Your task to perform on an android device: Do I have any events tomorrow? Image 0: 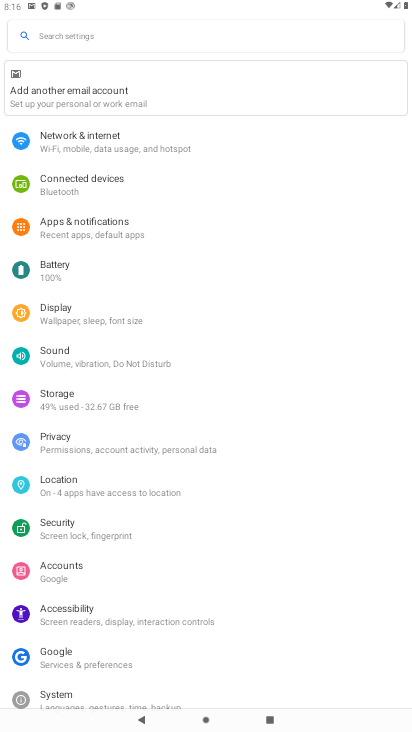
Step 0: press home button
Your task to perform on an android device: Do I have any events tomorrow? Image 1: 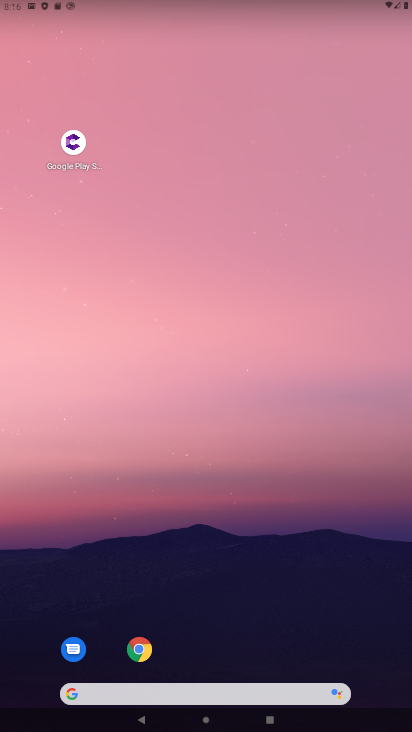
Step 1: drag from (191, 647) to (262, 47)
Your task to perform on an android device: Do I have any events tomorrow? Image 2: 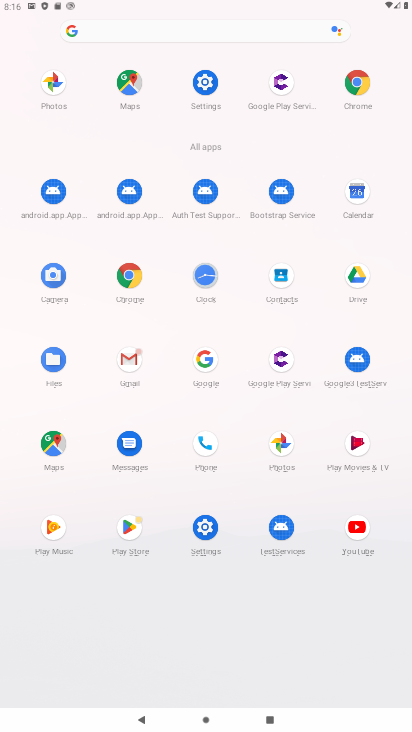
Step 2: click (359, 192)
Your task to perform on an android device: Do I have any events tomorrow? Image 3: 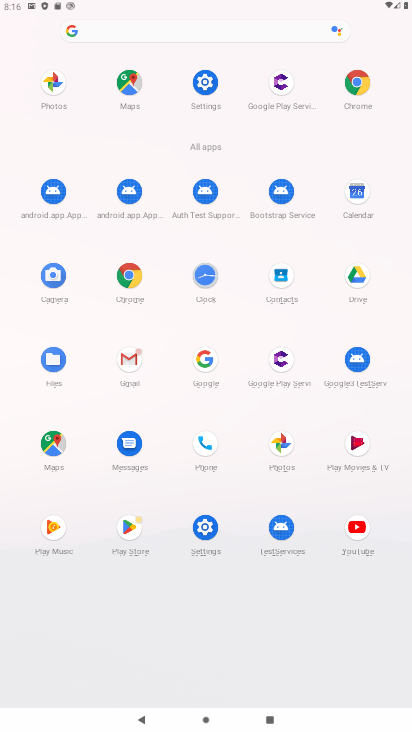
Step 3: click (359, 192)
Your task to perform on an android device: Do I have any events tomorrow? Image 4: 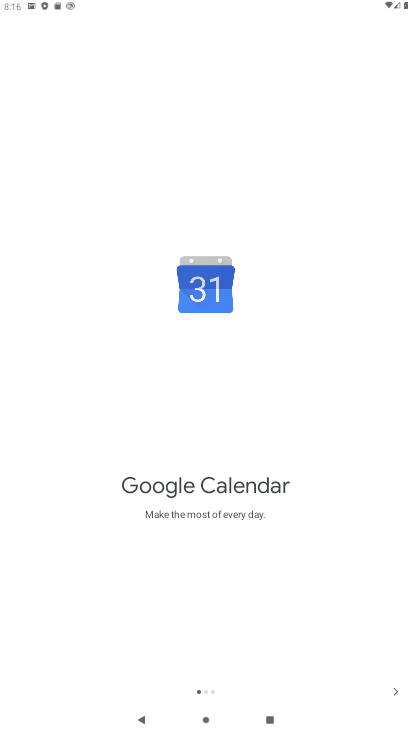
Step 4: click (398, 691)
Your task to perform on an android device: Do I have any events tomorrow? Image 5: 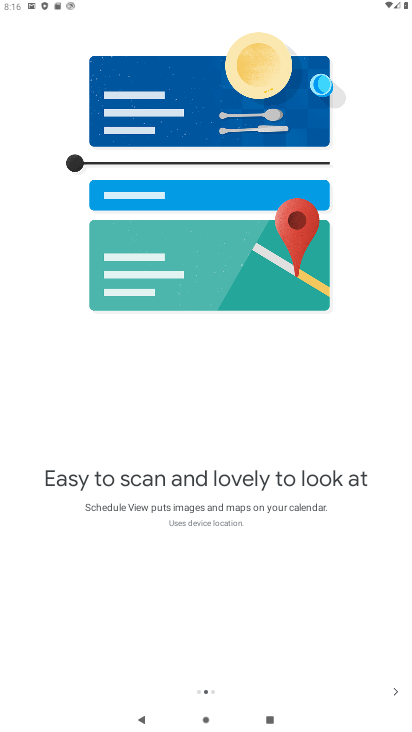
Step 5: click (395, 692)
Your task to perform on an android device: Do I have any events tomorrow? Image 6: 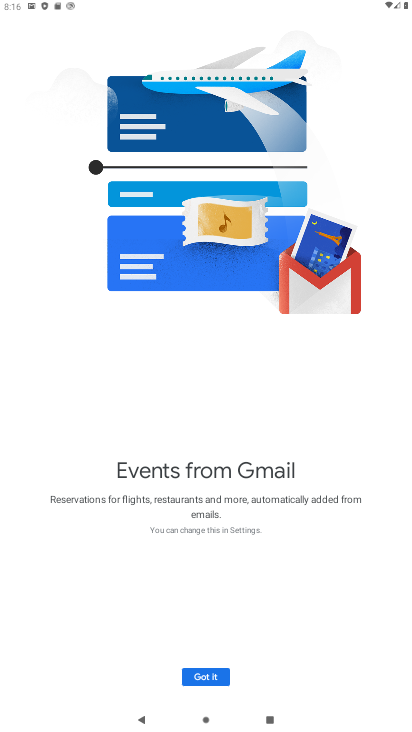
Step 6: click (395, 692)
Your task to perform on an android device: Do I have any events tomorrow? Image 7: 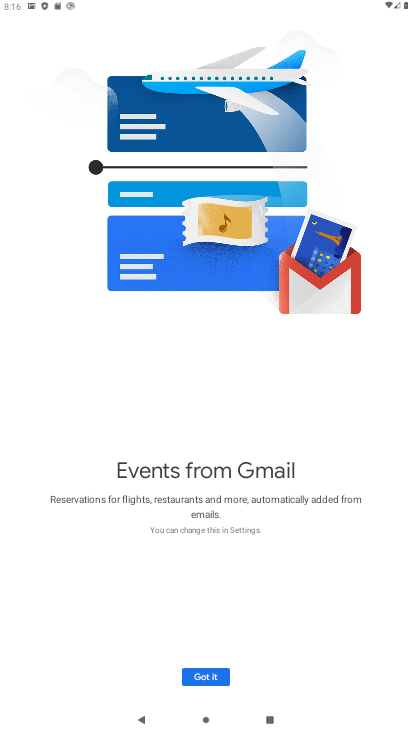
Step 7: click (207, 673)
Your task to perform on an android device: Do I have any events tomorrow? Image 8: 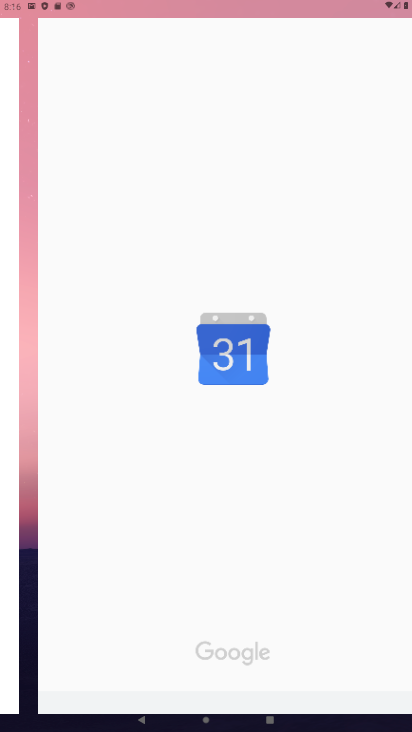
Step 8: drag from (216, 624) to (294, 134)
Your task to perform on an android device: Do I have any events tomorrow? Image 9: 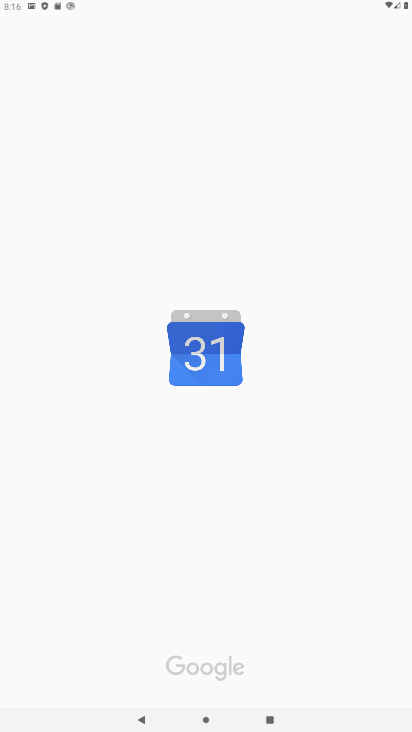
Step 9: drag from (256, 569) to (251, 374)
Your task to perform on an android device: Do I have any events tomorrow? Image 10: 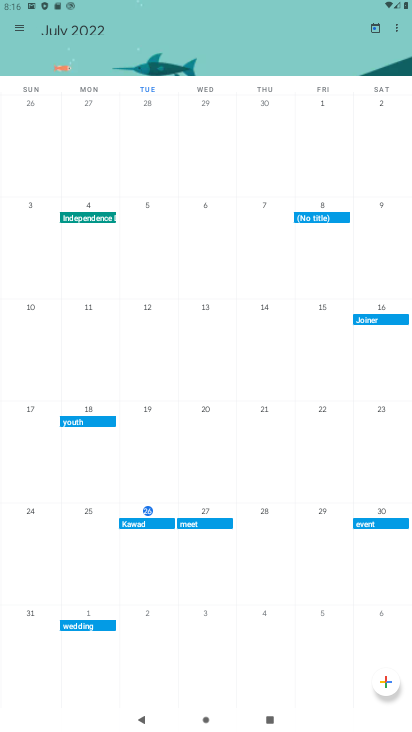
Step 10: click (90, 34)
Your task to perform on an android device: Do I have any events tomorrow? Image 11: 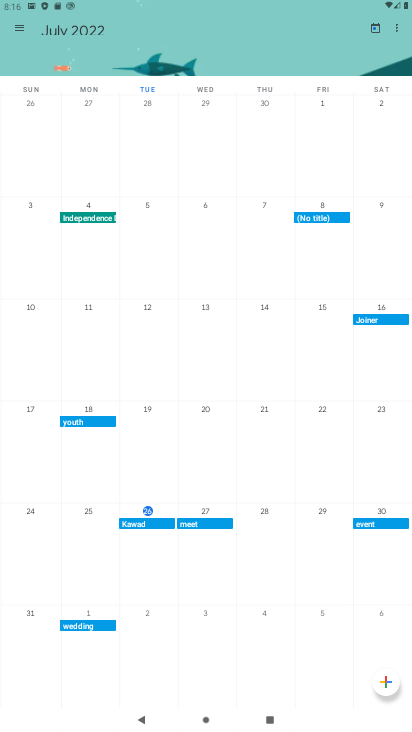
Step 11: click (379, 24)
Your task to perform on an android device: Do I have any events tomorrow? Image 12: 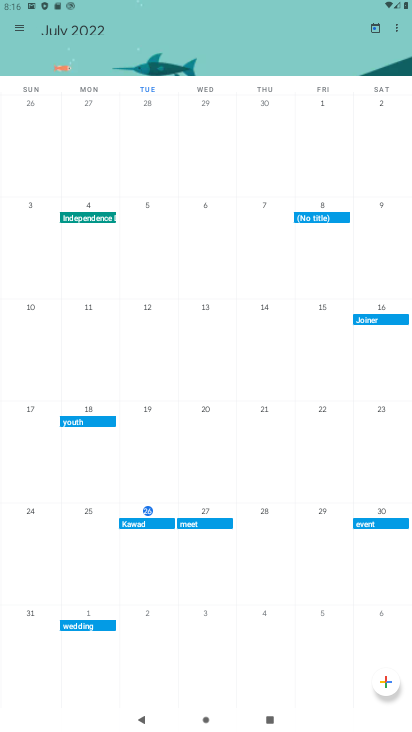
Step 12: click (205, 512)
Your task to perform on an android device: Do I have any events tomorrow? Image 13: 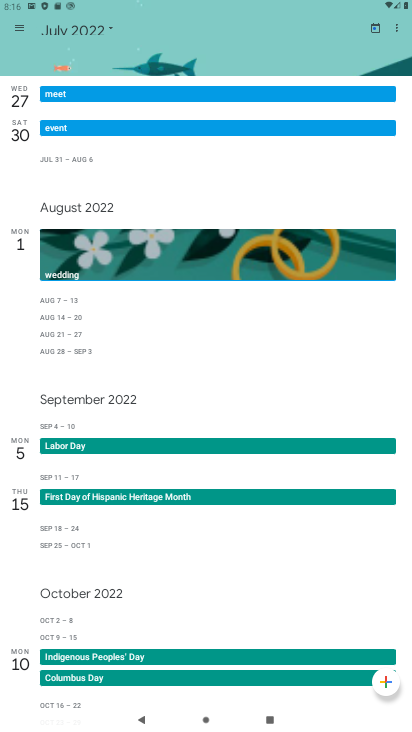
Step 13: task complete